Your task to perform on an android device: turn off sleep mode Image 0: 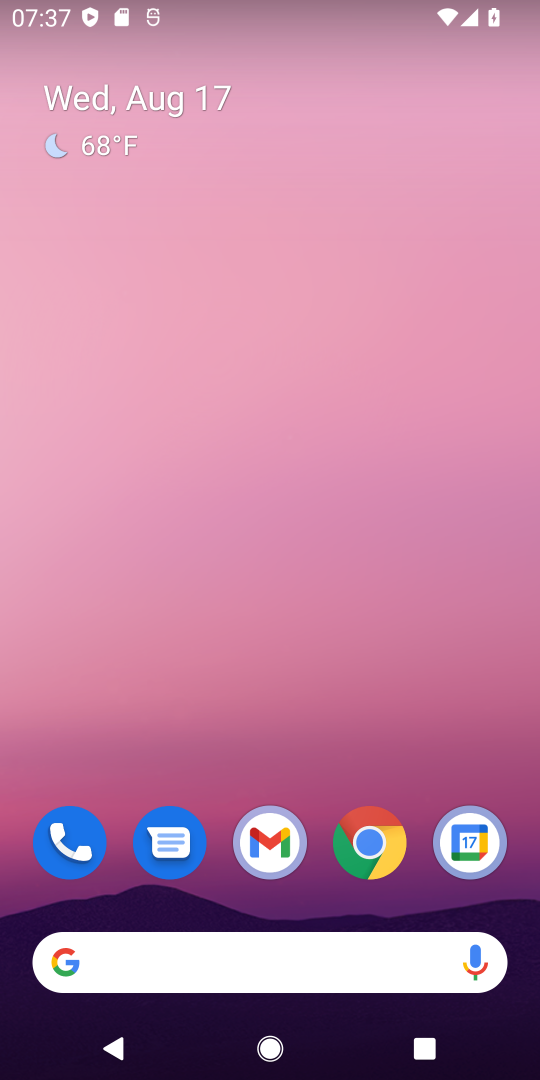
Step 0: drag from (316, 735) to (347, 1)
Your task to perform on an android device: turn off sleep mode Image 1: 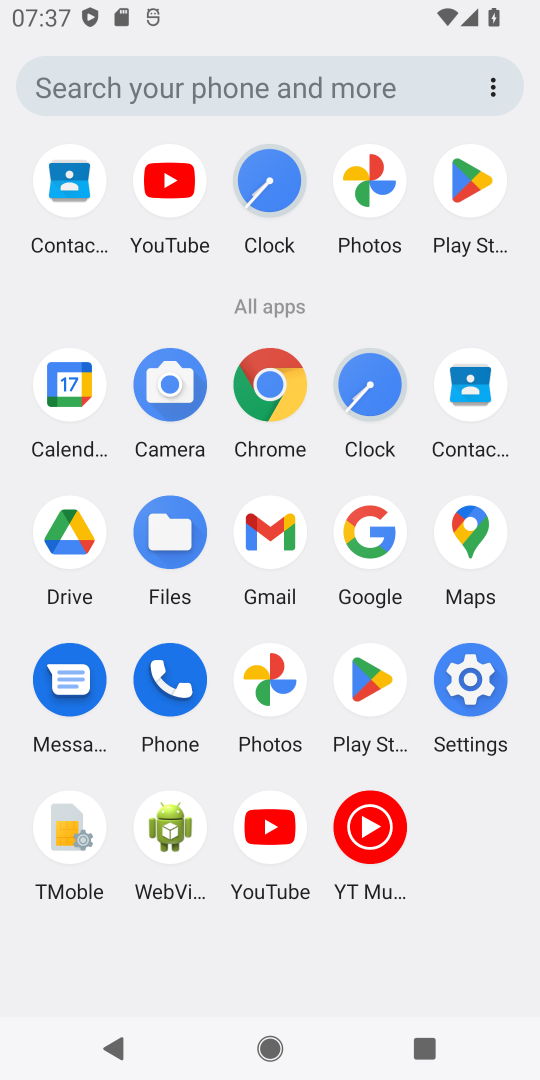
Step 1: click (468, 672)
Your task to perform on an android device: turn off sleep mode Image 2: 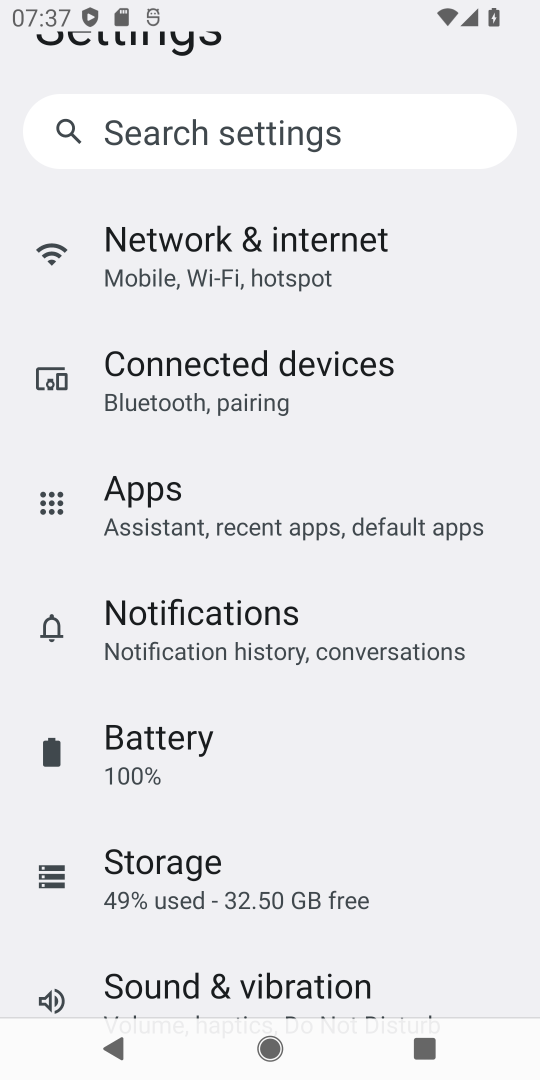
Step 2: task complete